Your task to perform on an android device: turn off translation in the chrome app Image 0: 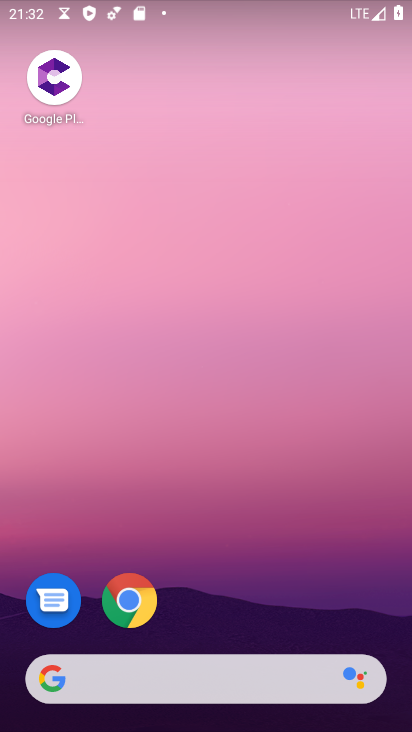
Step 0: drag from (336, 599) to (257, 431)
Your task to perform on an android device: turn off translation in the chrome app Image 1: 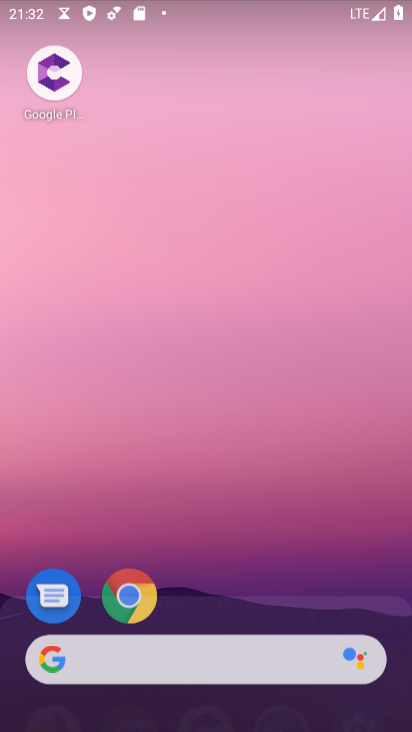
Step 1: click (257, 431)
Your task to perform on an android device: turn off translation in the chrome app Image 2: 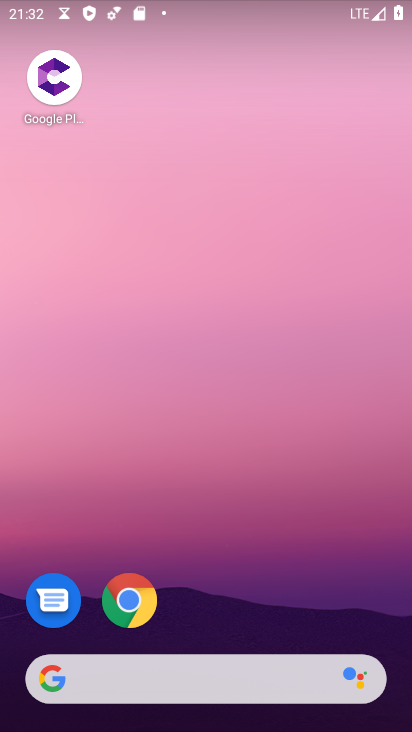
Step 2: drag from (215, 624) to (269, 92)
Your task to perform on an android device: turn off translation in the chrome app Image 3: 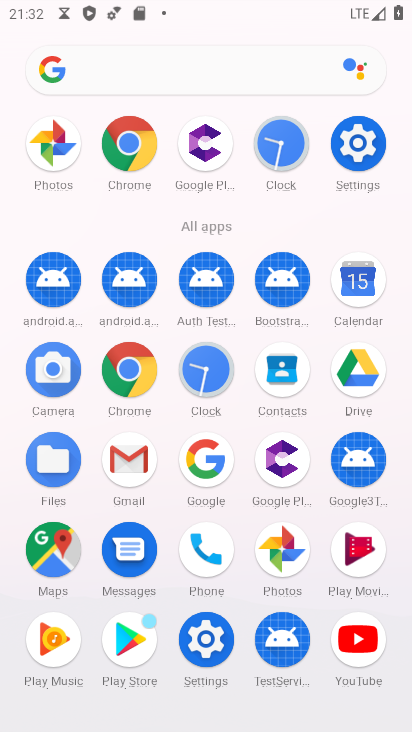
Step 3: click (142, 147)
Your task to perform on an android device: turn off translation in the chrome app Image 4: 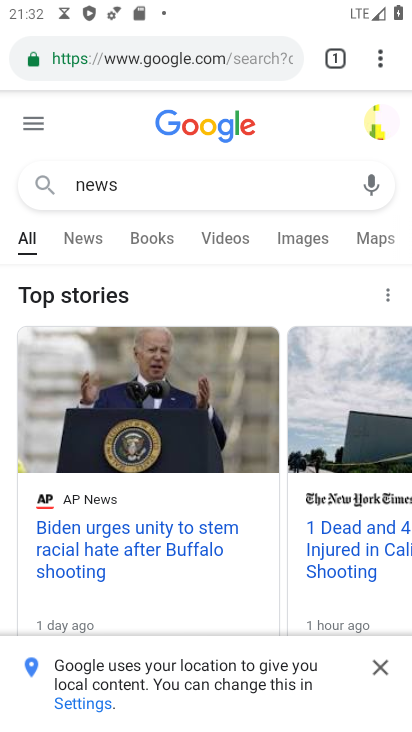
Step 4: click (379, 62)
Your task to perform on an android device: turn off translation in the chrome app Image 5: 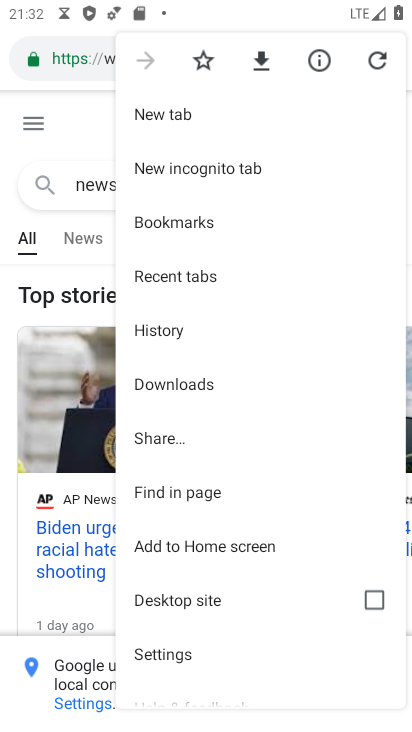
Step 5: drag from (254, 597) to (253, 404)
Your task to perform on an android device: turn off translation in the chrome app Image 6: 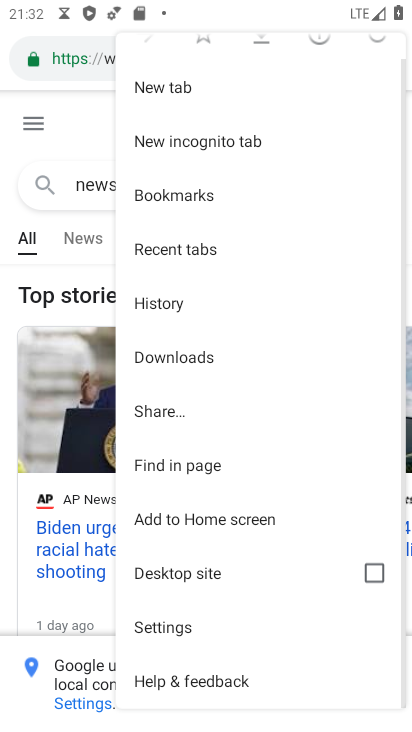
Step 6: click (240, 618)
Your task to perform on an android device: turn off translation in the chrome app Image 7: 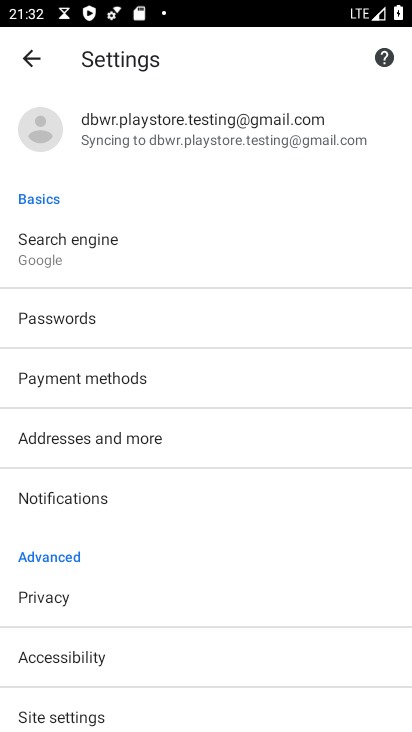
Step 7: drag from (240, 618) to (251, 390)
Your task to perform on an android device: turn off translation in the chrome app Image 8: 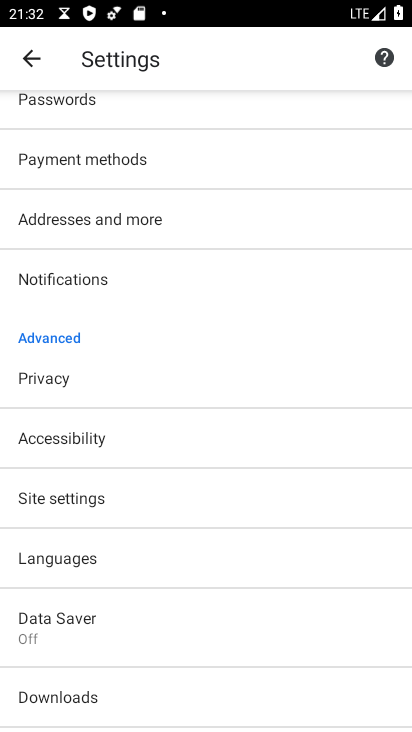
Step 8: click (236, 552)
Your task to perform on an android device: turn off translation in the chrome app Image 9: 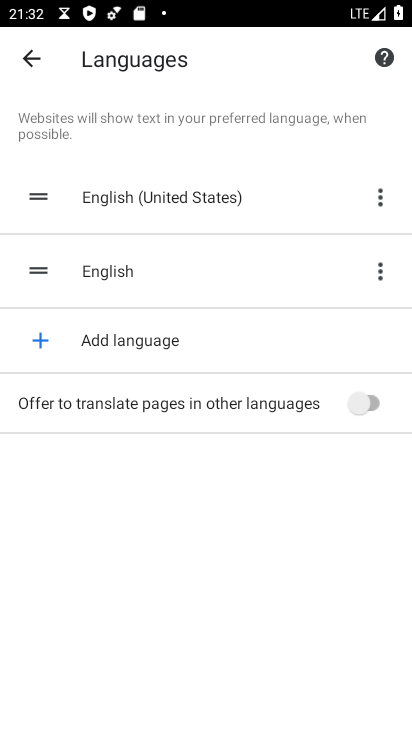
Step 9: task complete